Your task to perform on an android device: Is it going to rain this weekend? Image 0: 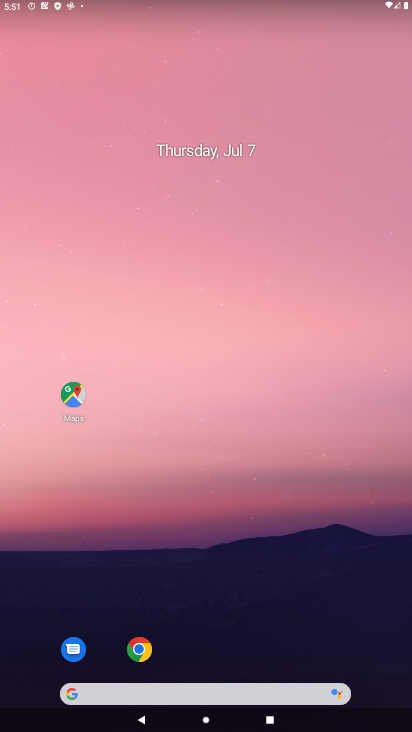
Step 0: drag from (386, 668) to (199, 29)
Your task to perform on an android device: Is it going to rain this weekend? Image 1: 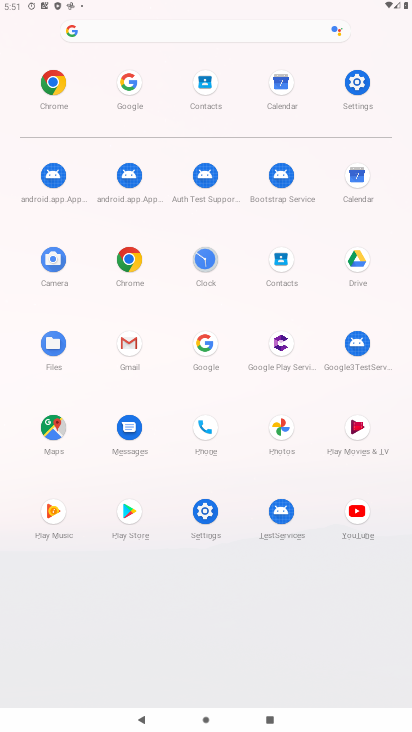
Step 1: click (120, 88)
Your task to perform on an android device: Is it going to rain this weekend? Image 2: 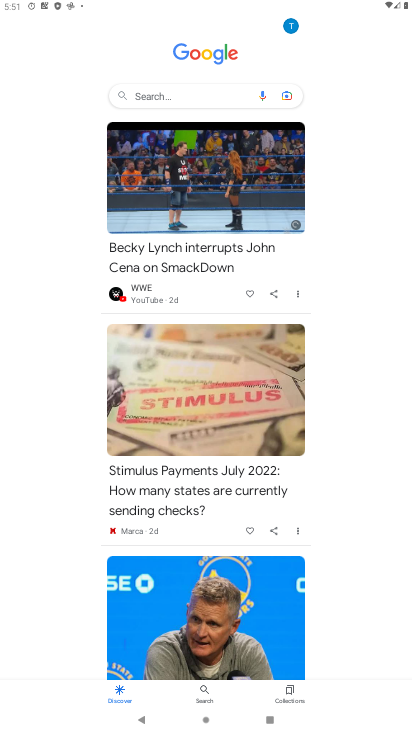
Step 2: click (156, 88)
Your task to perform on an android device: Is it going to rain this weekend? Image 3: 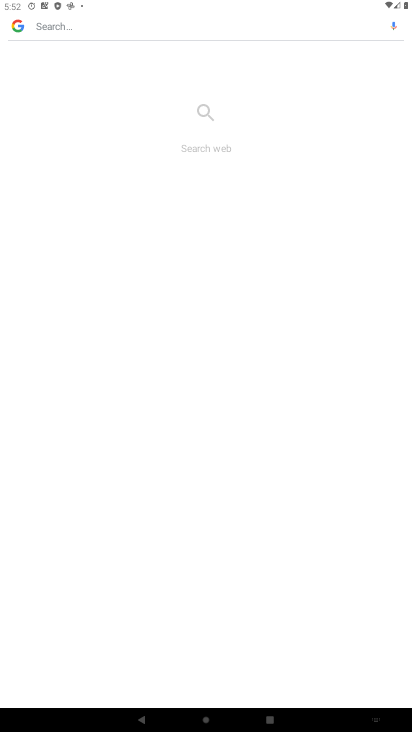
Step 3: type "Is it going to rain this weekend?"
Your task to perform on an android device: Is it going to rain this weekend? Image 4: 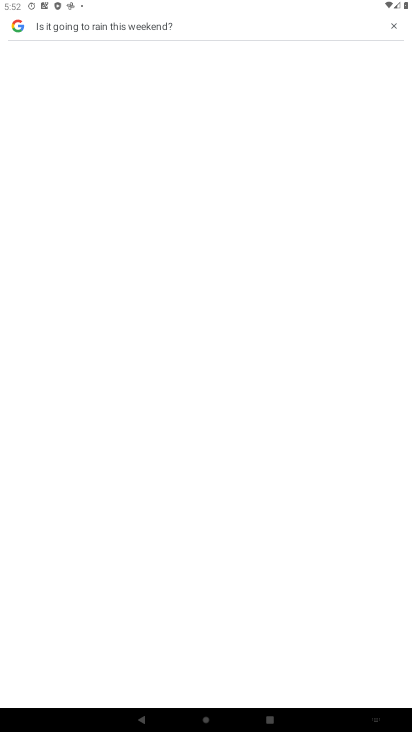
Step 4: task complete